Your task to perform on an android device: add a contact in the contacts app Image 0: 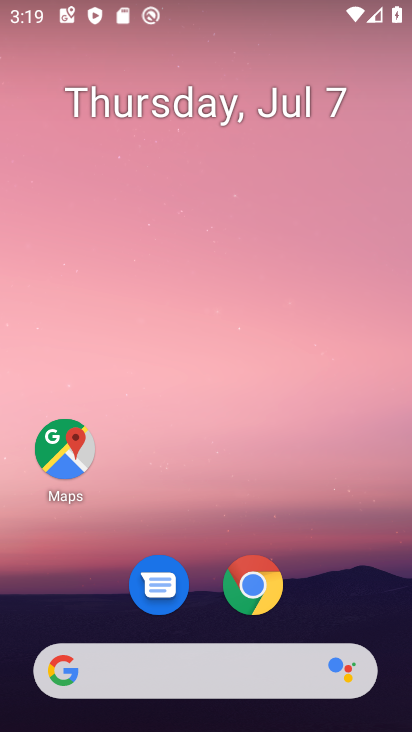
Step 0: drag from (246, 427) to (242, 4)
Your task to perform on an android device: add a contact in the contacts app Image 1: 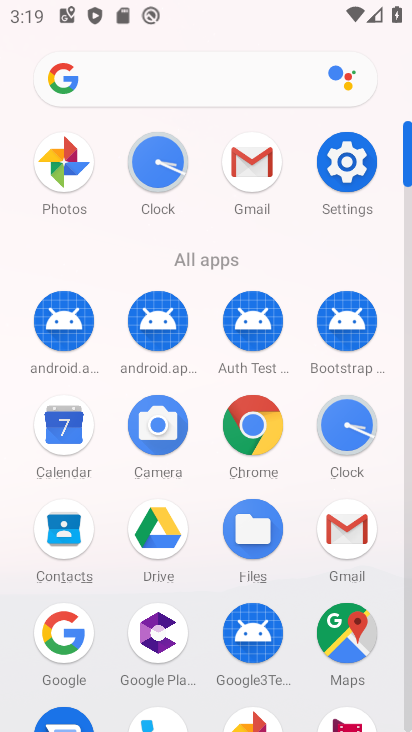
Step 1: click (68, 536)
Your task to perform on an android device: add a contact in the contacts app Image 2: 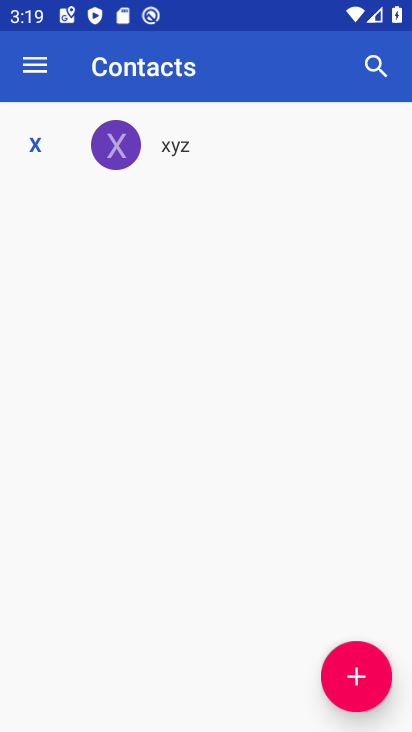
Step 2: click (358, 674)
Your task to perform on an android device: add a contact in the contacts app Image 3: 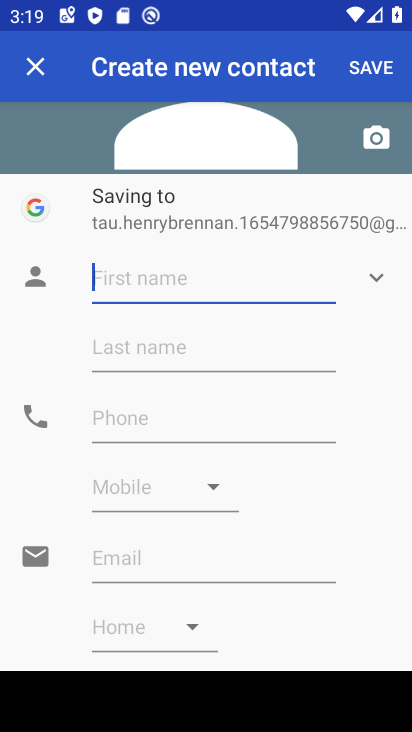
Step 3: type "Shri Ram"
Your task to perform on an android device: add a contact in the contacts app Image 4: 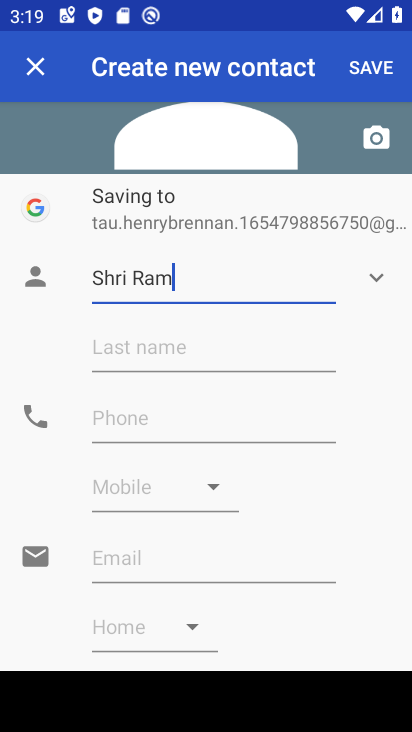
Step 4: click (237, 432)
Your task to perform on an android device: add a contact in the contacts app Image 5: 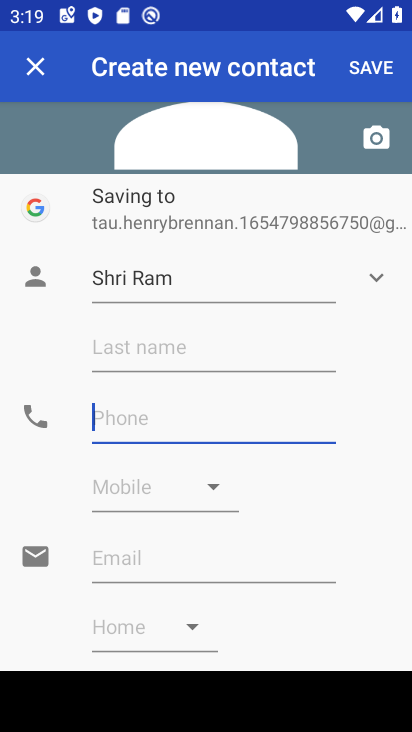
Step 5: type "9999999999"
Your task to perform on an android device: add a contact in the contacts app Image 6: 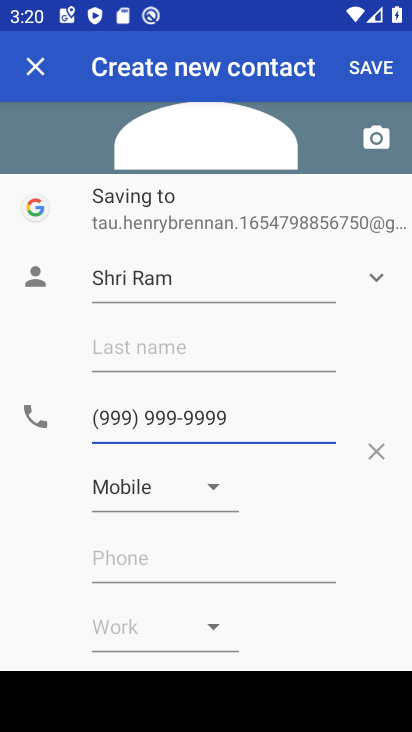
Step 6: click (368, 76)
Your task to perform on an android device: add a contact in the contacts app Image 7: 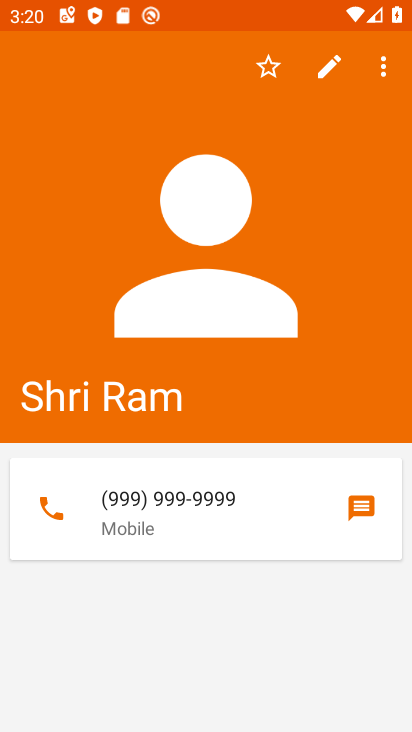
Step 7: task complete